Your task to perform on an android device: turn off sleep mode Image 0: 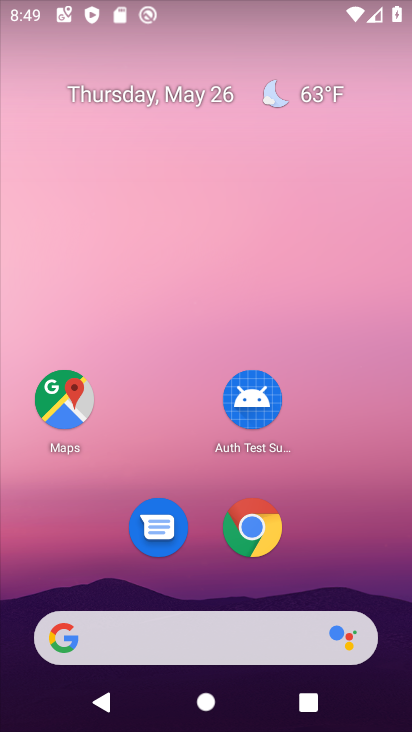
Step 0: drag from (344, 537) to (357, 24)
Your task to perform on an android device: turn off sleep mode Image 1: 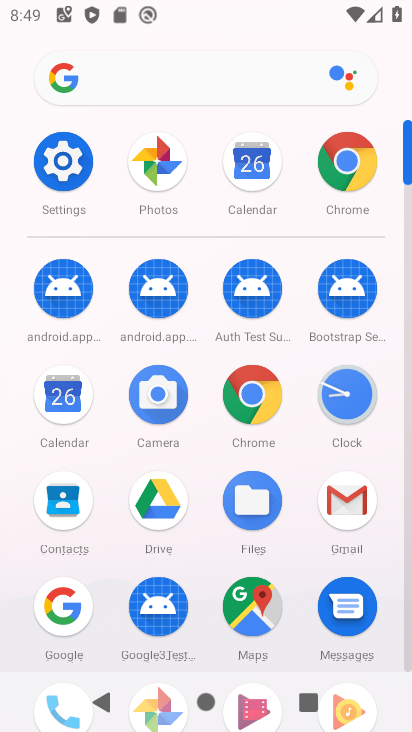
Step 1: click (357, 27)
Your task to perform on an android device: turn off sleep mode Image 2: 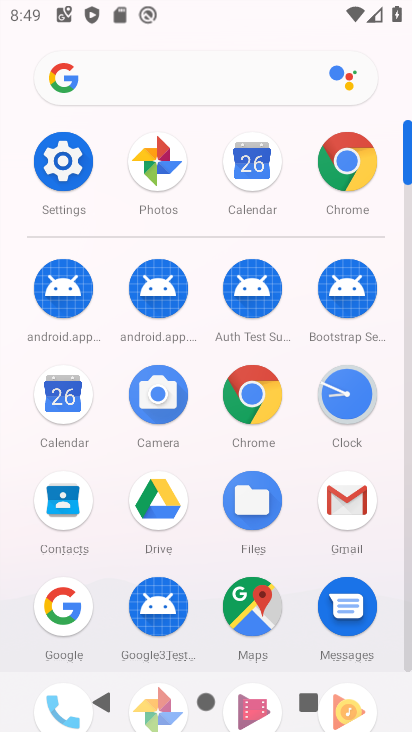
Step 2: click (41, 161)
Your task to perform on an android device: turn off sleep mode Image 3: 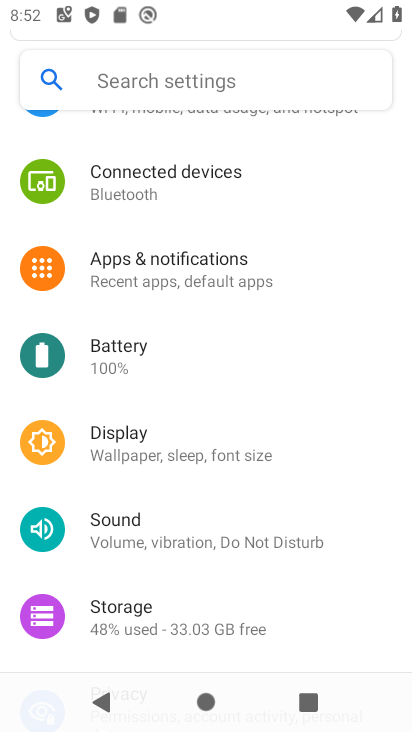
Step 3: drag from (210, 366) to (228, 609)
Your task to perform on an android device: turn off sleep mode Image 4: 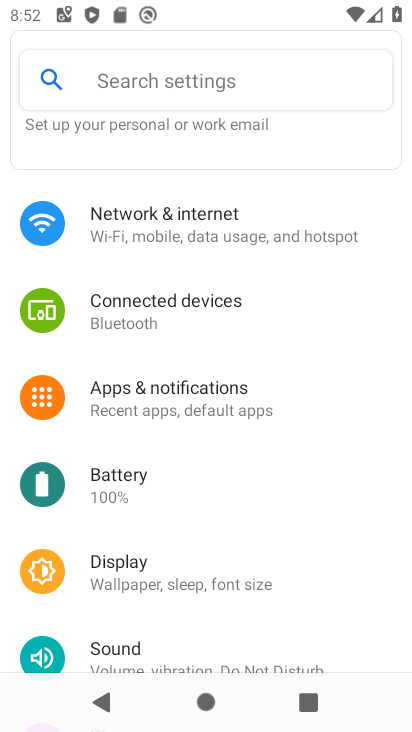
Step 4: drag from (247, 378) to (209, 590)
Your task to perform on an android device: turn off sleep mode Image 5: 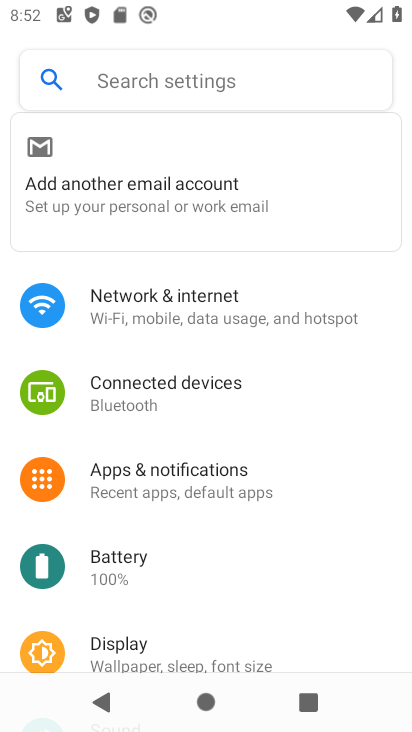
Step 5: drag from (209, 569) to (228, 255)
Your task to perform on an android device: turn off sleep mode Image 6: 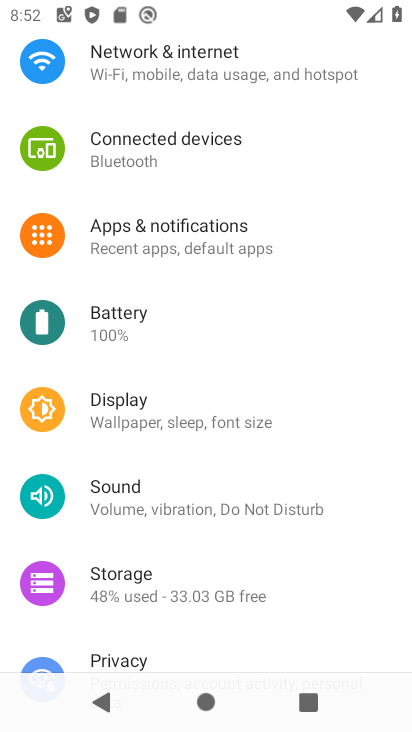
Step 6: drag from (175, 589) to (254, 208)
Your task to perform on an android device: turn off sleep mode Image 7: 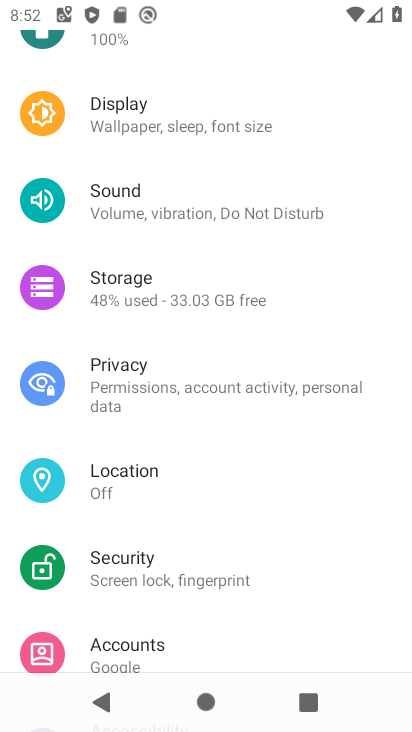
Step 7: drag from (199, 486) to (230, 201)
Your task to perform on an android device: turn off sleep mode Image 8: 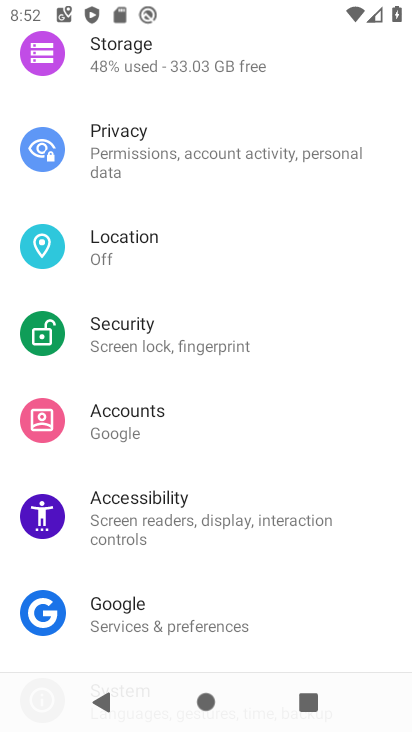
Step 8: drag from (230, 566) to (287, 177)
Your task to perform on an android device: turn off sleep mode Image 9: 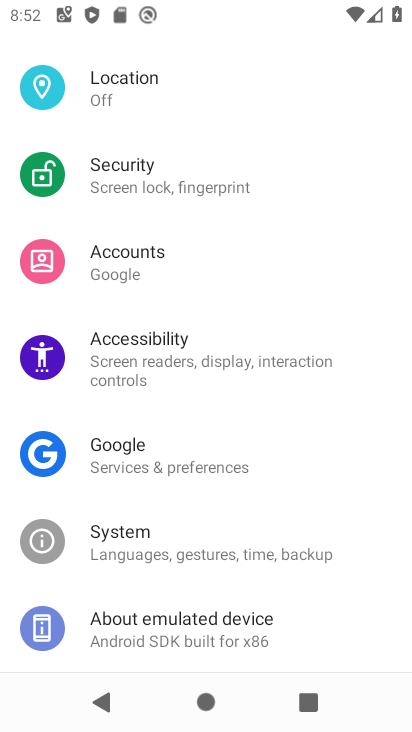
Step 9: drag from (287, 176) to (282, 588)
Your task to perform on an android device: turn off sleep mode Image 10: 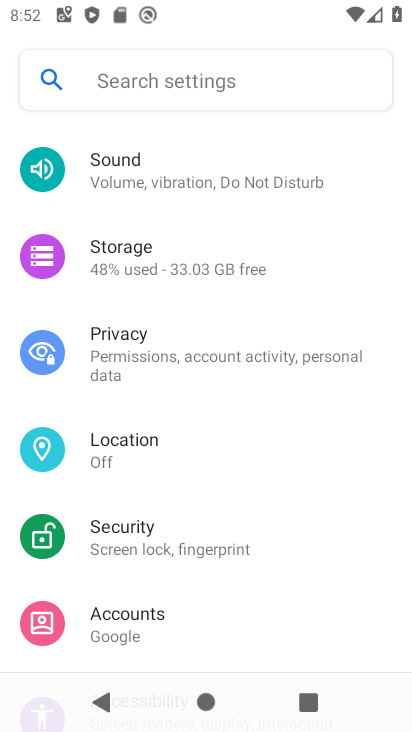
Step 10: drag from (246, 212) to (247, 639)
Your task to perform on an android device: turn off sleep mode Image 11: 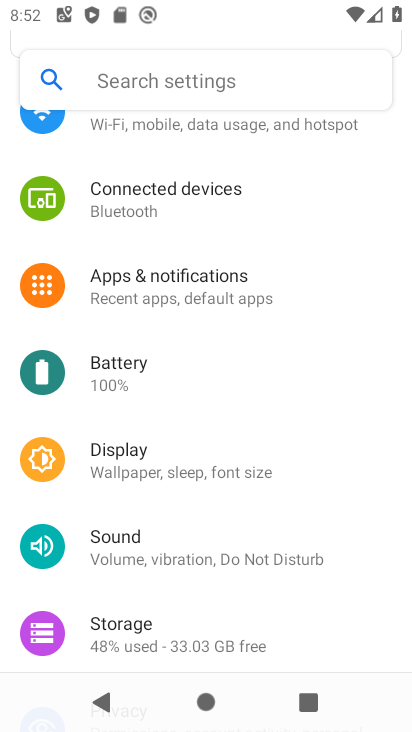
Step 11: drag from (188, 270) to (234, 639)
Your task to perform on an android device: turn off sleep mode Image 12: 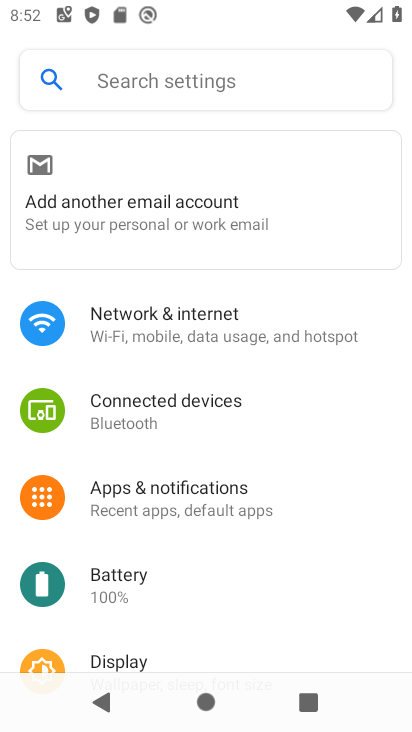
Step 12: drag from (151, 491) to (164, 245)
Your task to perform on an android device: turn off sleep mode Image 13: 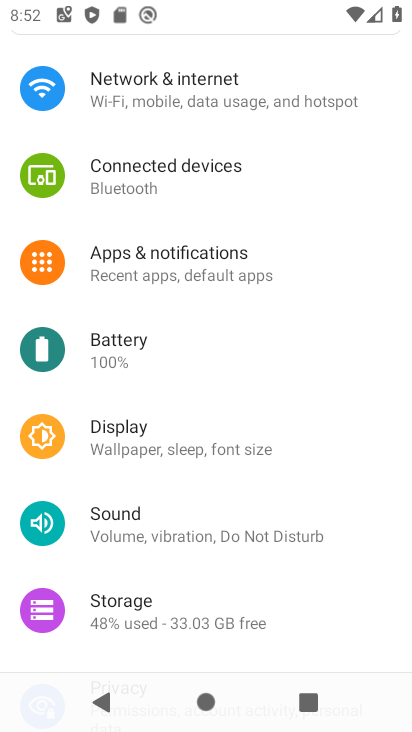
Step 13: click (102, 434)
Your task to perform on an android device: turn off sleep mode Image 14: 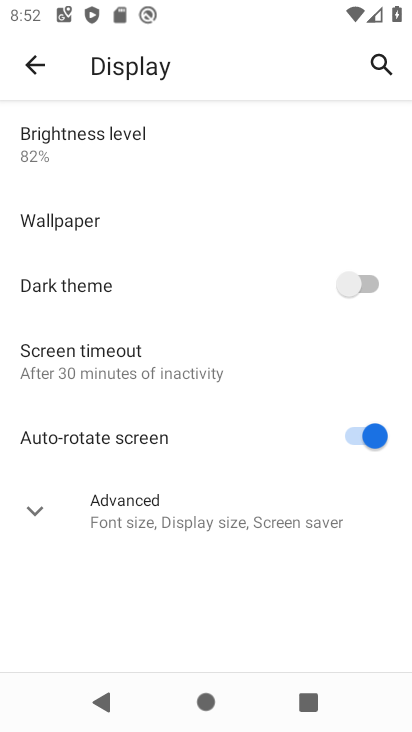
Step 14: click (88, 349)
Your task to perform on an android device: turn off sleep mode Image 15: 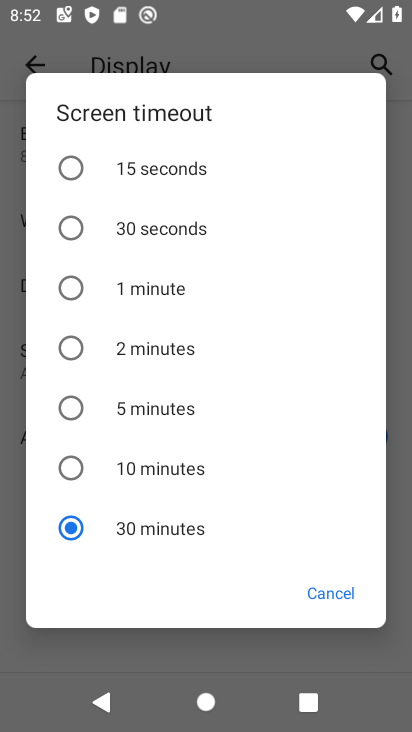
Step 15: task complete